Your task to perform on an android device: check google app version Image 0: 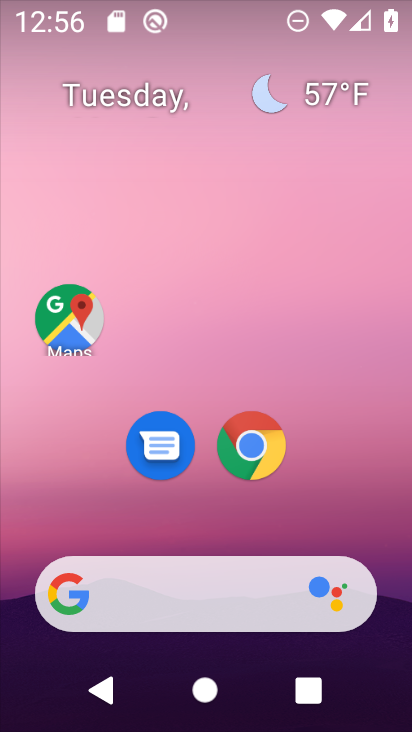
Step 0: drag from (391, 544) to (370, 206)
Your task to perform on an android device: check google app version Image 1: 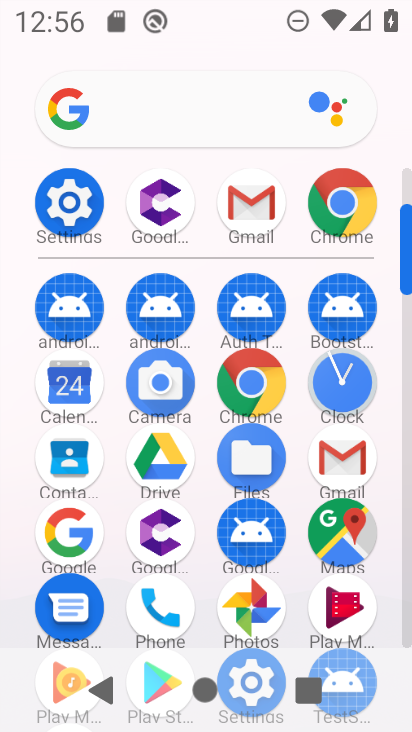
Step 1: click (62, 537)
Your task to perform on an android device: check google app version Image 2: 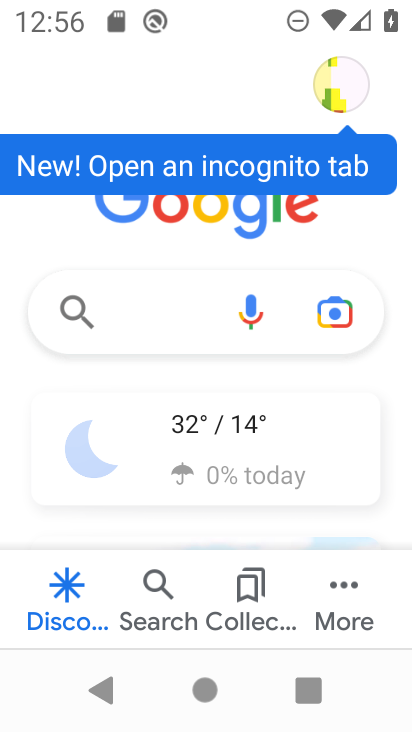
Step 2: click (352, 607)
Your task to perform on an android device: check google app version Image 3: 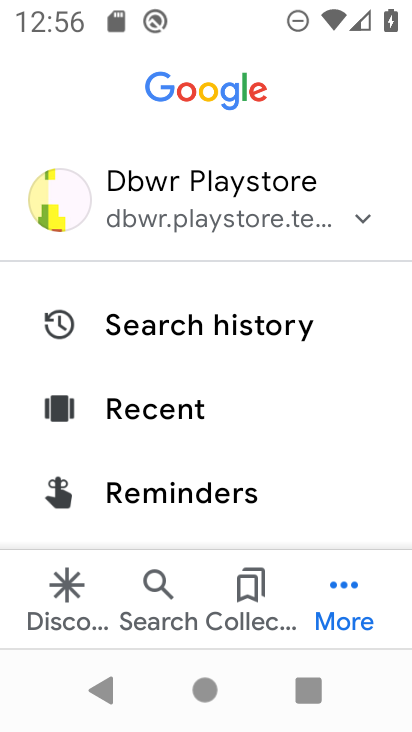
Step 3: drag from (336, 499) to (345, 334)
Your task to perform on an android device: check google app version Image 4: 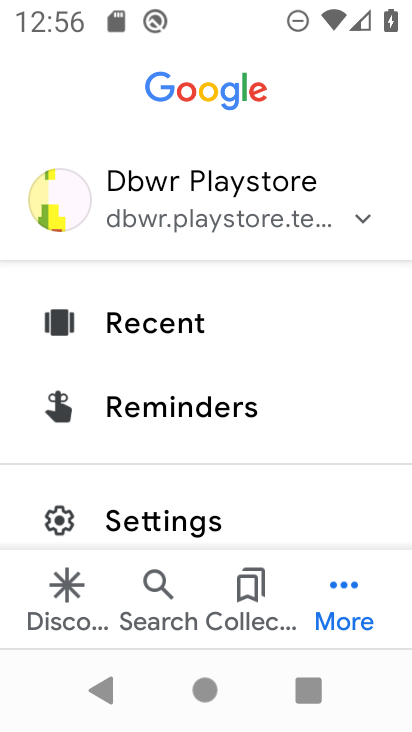
Step 4: drag from (314, 508) to (325, 332)
Your task to perform on an android device: check google app version Image 5: 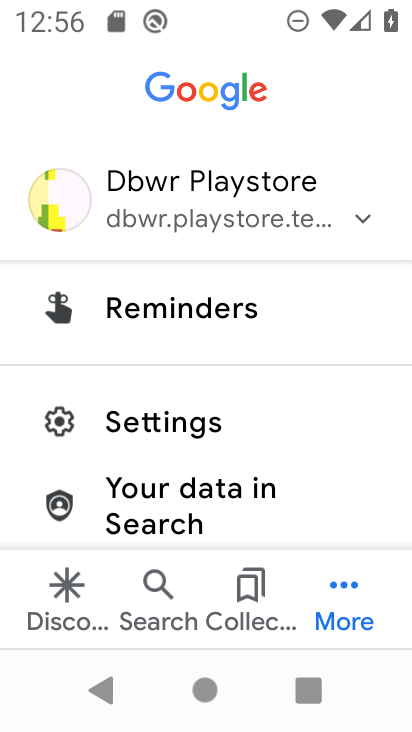
Step 5: click (206, 419)
Your task to perform on an android device: check google app version Image 6: 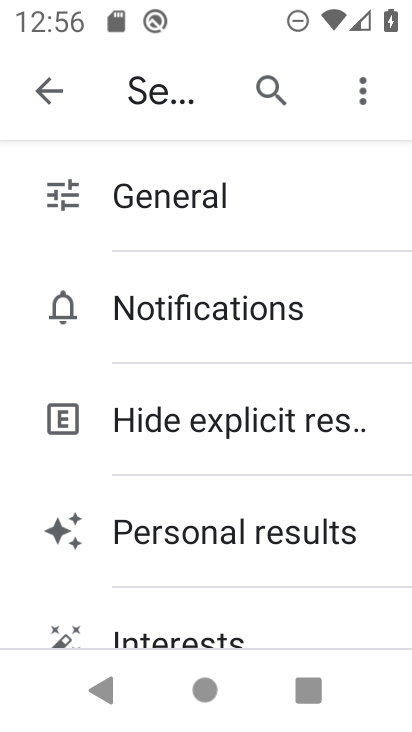
Step 6: drag from (351, 593) to (352, 465)
Your task to perform on an android device: check google app version Image 7: 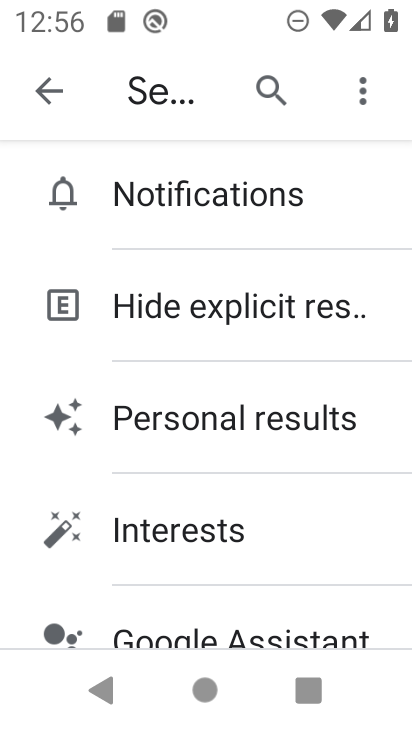
Step 7: drag from (341, 581) to (363, 437)
Your task to perform on an android device: check google app version Image 8: 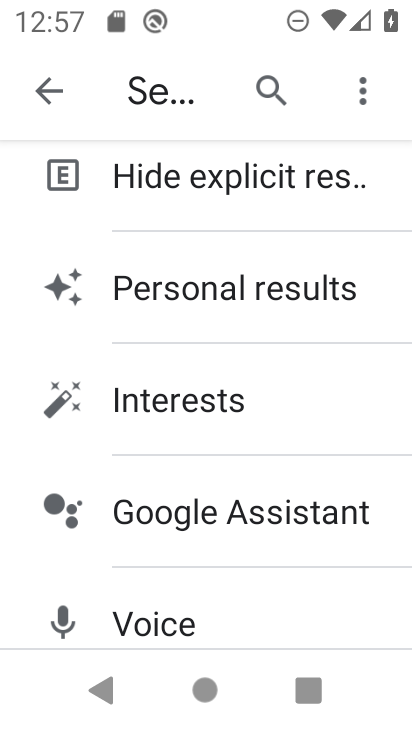
Step 8: drag from (343, 588) to (364, 478)
Your task to perform on an android device: check google app version Image 9: 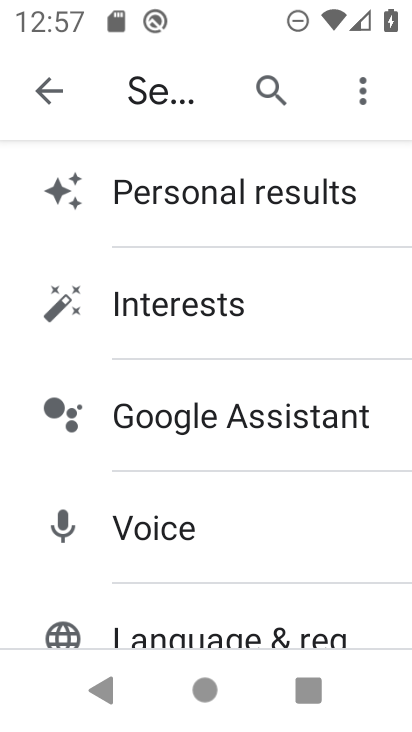
Step 9: drag from (370, 607) to (364, 480)
Your task to perform on an android device: check google app version Image 10: 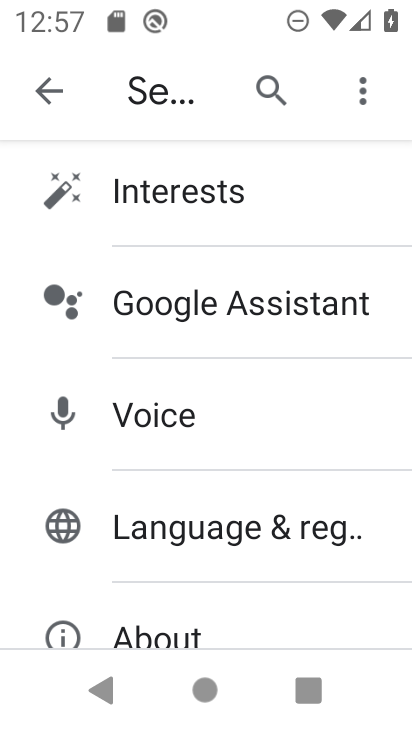
Step 10: drag from (360, 627) to (355, 511)
Your task to perform on an android device: check google app version Image 11: 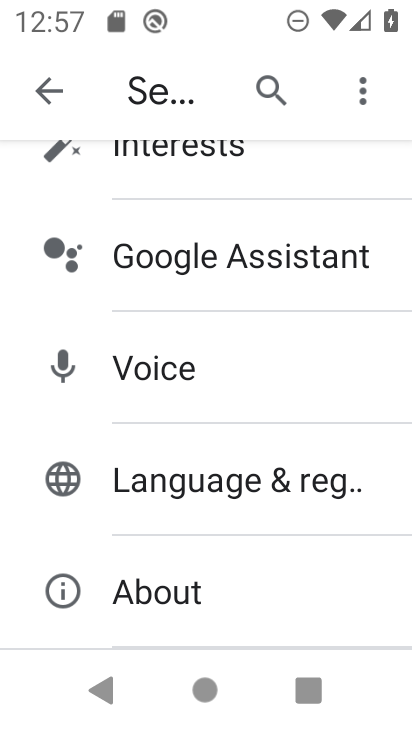
Step 11: click (314, 591)
Your task to perform on an android device: check google app version Image 12: 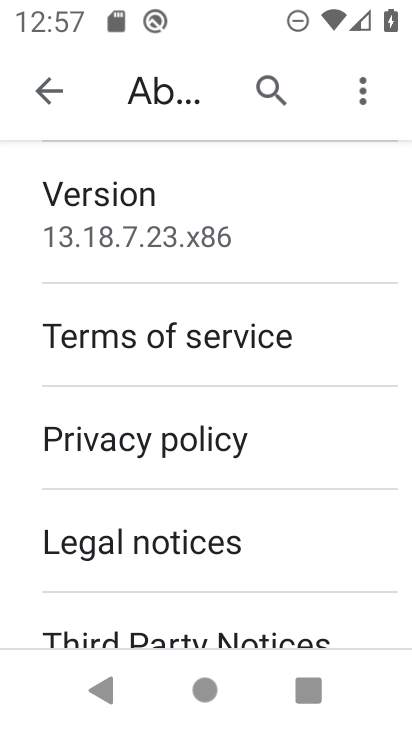
Step 12: task complete